Your task to perform on an android device: Open Youtube and go to the subscriptions tab Image 0: 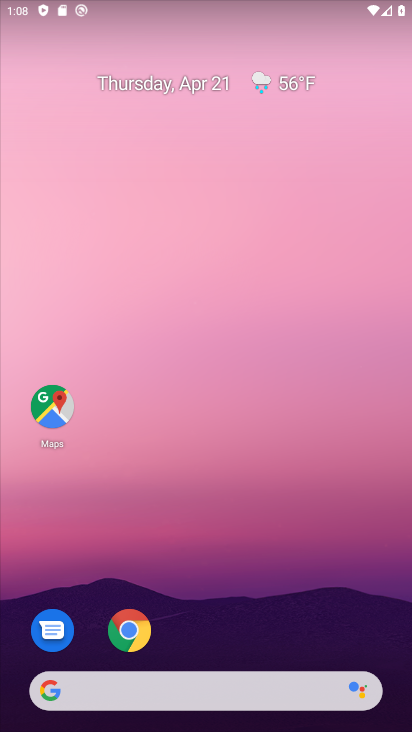
Step 0: drag from (277, 385) to (264, 73)
Your task to perform on an android device: Open Youtube and go to the subscriptions tab Image 1: 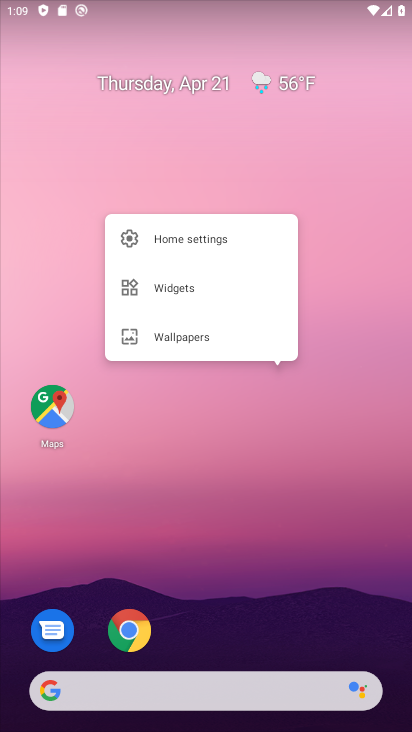
Step 1: drag from (302, 514) to (355, 15)
Your task to perform on an android device: Open Youtube and go to the subscriptions tab Image 2: 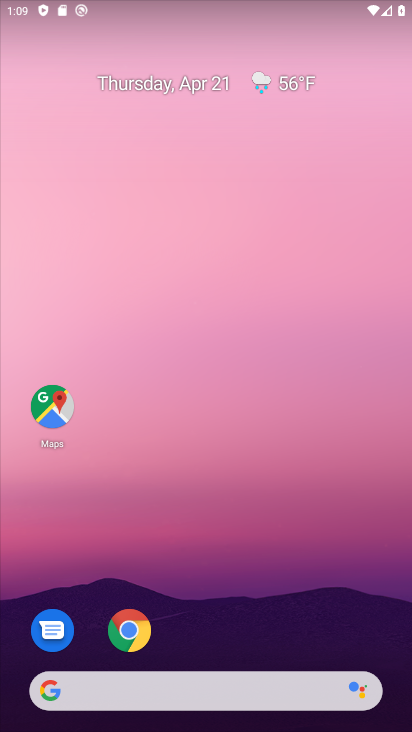
Step 2: drag from (302, 632) to (212, 21)
Your task to perform on an android device: Open Youtube and go to the subscriptions tab Image 3: 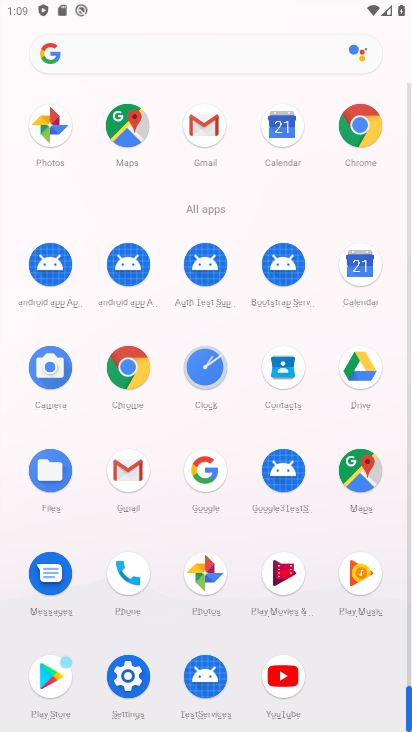
Step 3: drag from (224, 402) to (240, 68)
Your task to perform on an android device: Open Youtube and go to the subscriptions tab Image 4: 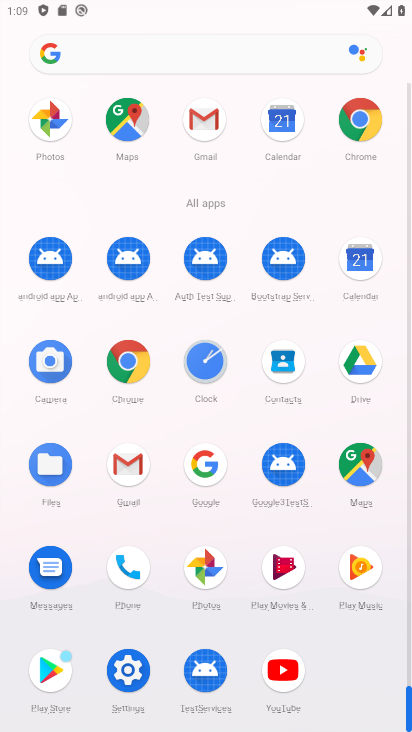
Step 4: click (283, 657)
Your task to perform on an android device: Open Youtube and go to the subscriptions tab Image 5: 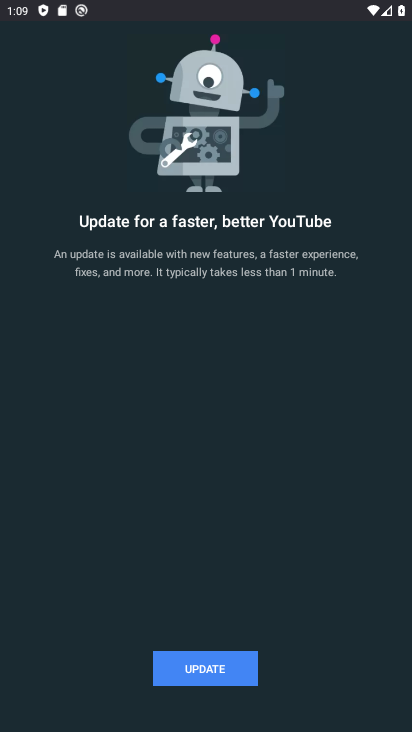
Step 5: click (210, 672)
Your task to perform on an android device: Open Youtube and go to the subscriptions tab Image 6: 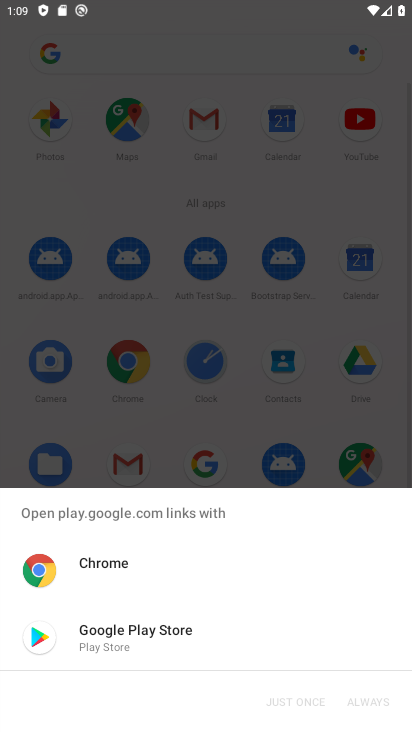
Step 6: click (151, 634)
Your task to perform on an android device: Open Youtube and go to the subscriptions tab Image 7: 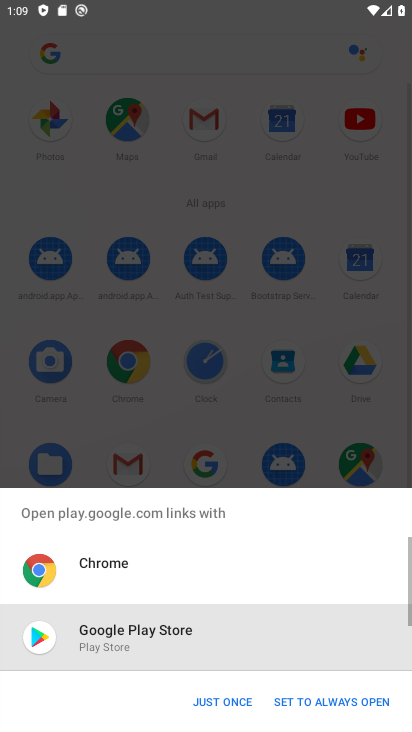
Step 7: click (230, 698)
Your task to perform on an android device: Open Youtube and go to the subscriptions tab Image 8: 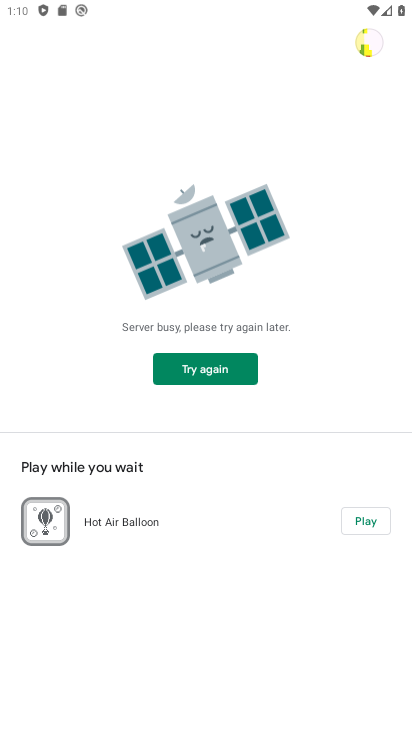
Step 8: click (231, 364)
Your task to perform on an android device: Open Youtube and go to the subscriptions tab Image 9: 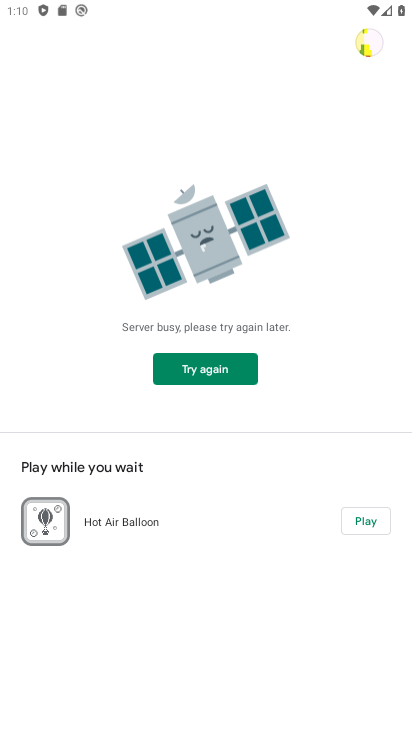
Step 9: task complete